Your task to perform on an android device: change text size in settings app Image 0: 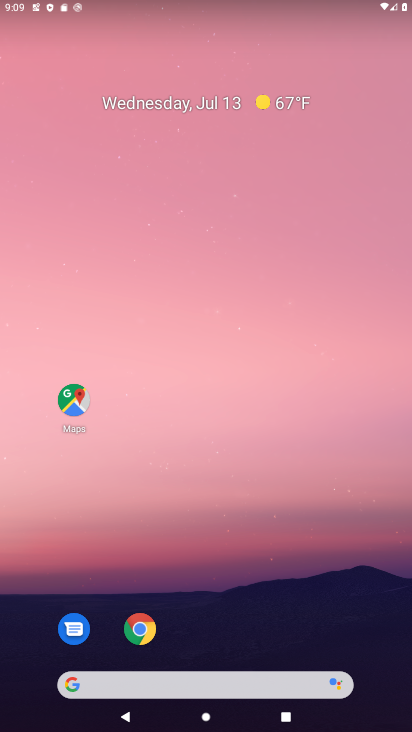
Step 0: drag from (217, 537) to (204, 53)
Your task to perform on an android device: change text size in settings app Image 1: 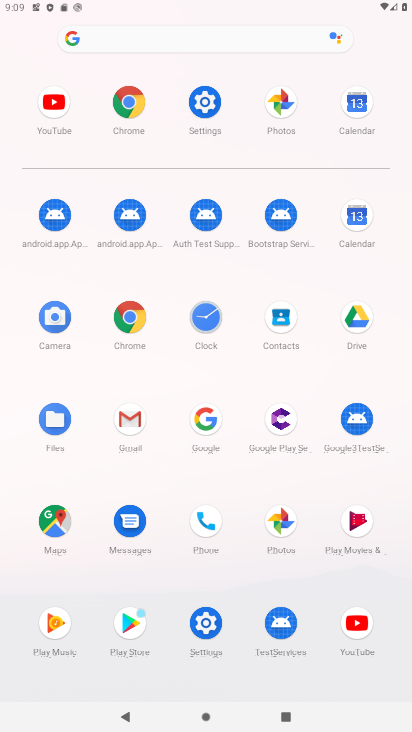
Step 1: click (209, 639)
Your task to perform on an android device: change text size in settings app Image 2: 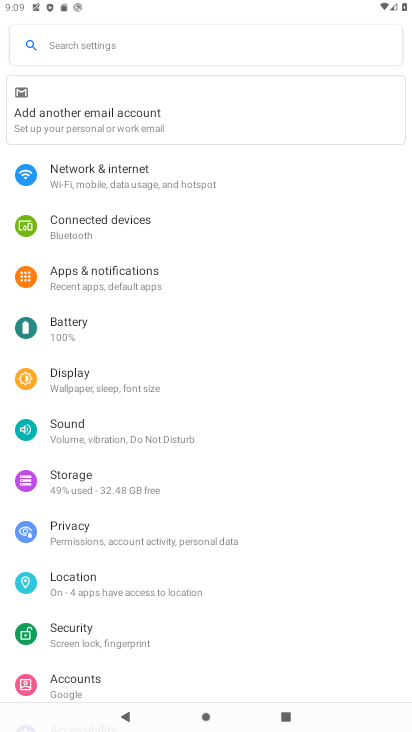
Step 2: drag from (108, 595) to (131, 462)
Your task to perform on an android device: change text size in settings app Image 3: 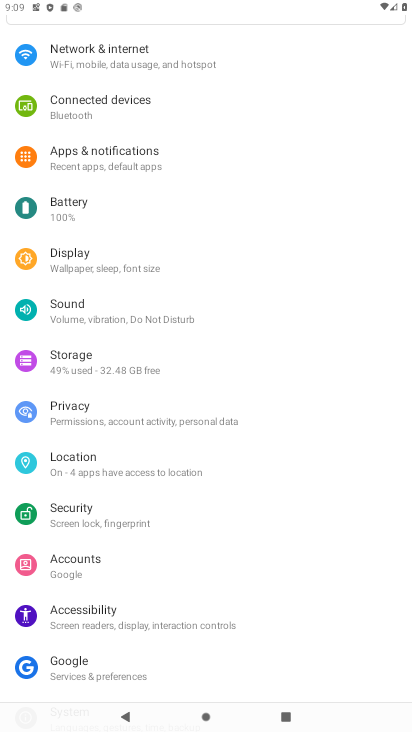
Step 3: click (91, 254)
Your task to perform on an android device: change text size in settings app Image 4: 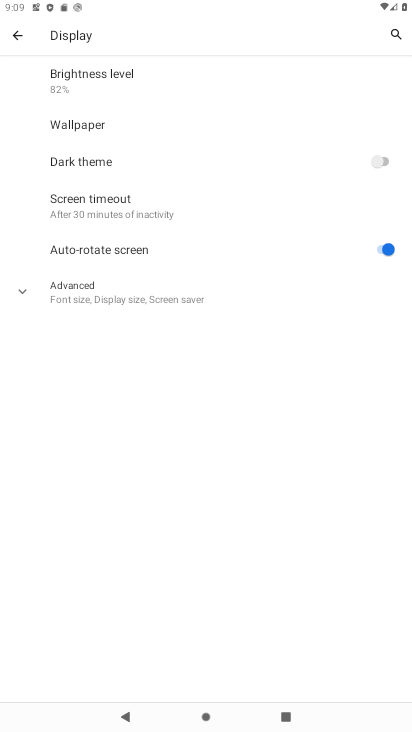
Step 4: click (130, 296)
Your task to perform on an android device: change text size in settings app Image 5: 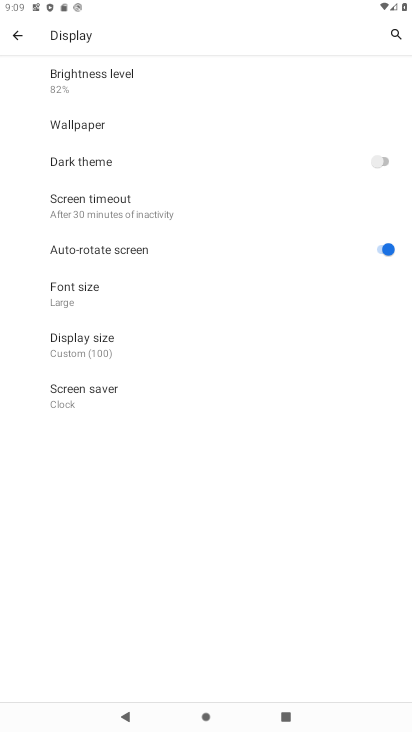
Step 5: click (78, 274)
Your task to perform on an android device: change text size in settings app Image 6: 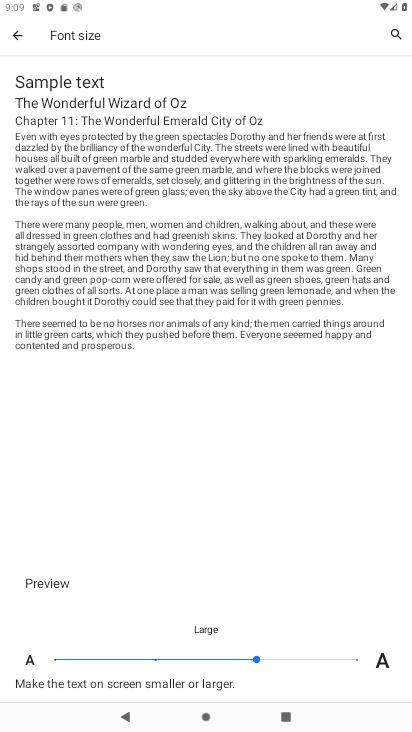
Step 6: click (358, 658)
Your task to perform on an android device: change text size in settings app Image 7: 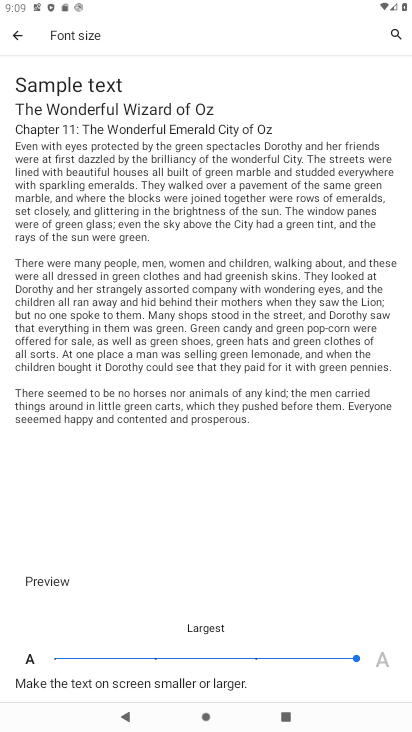
Step 7: task complete